Your task to perform on an android device: all mails in gmail Image 0: 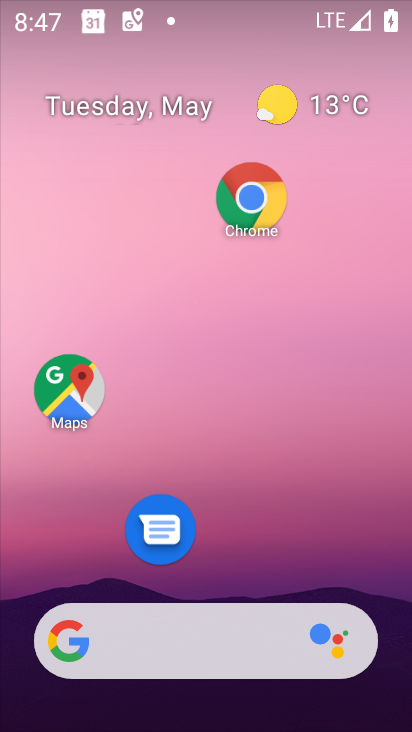
Step 0: drag from (360, 566) to (280, 11)
Your task to perform on an android device: all mails in gmail Image 1: 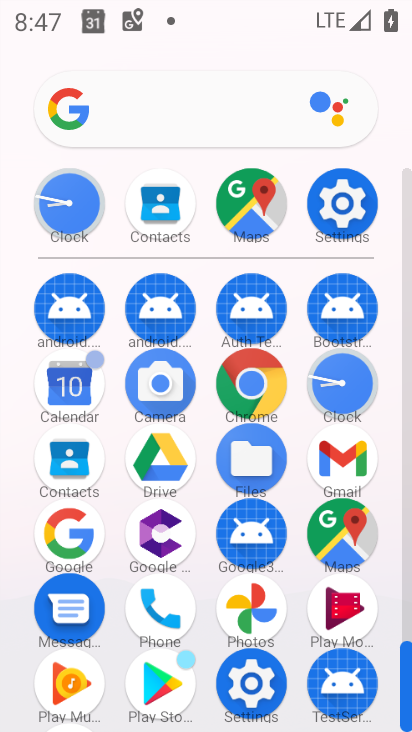
Step 1: click (342, 445)
Your task to perform on an android device: all mails in gmail Image 2: 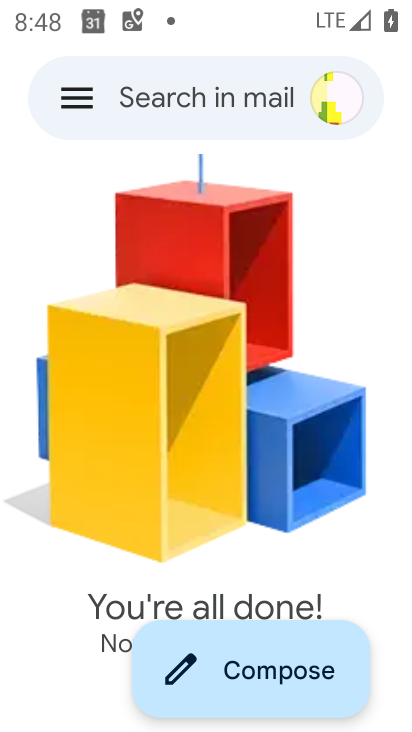
Step 2: click (66, 83)
Your task to perform on an android device: all mails in gmail Image 3: 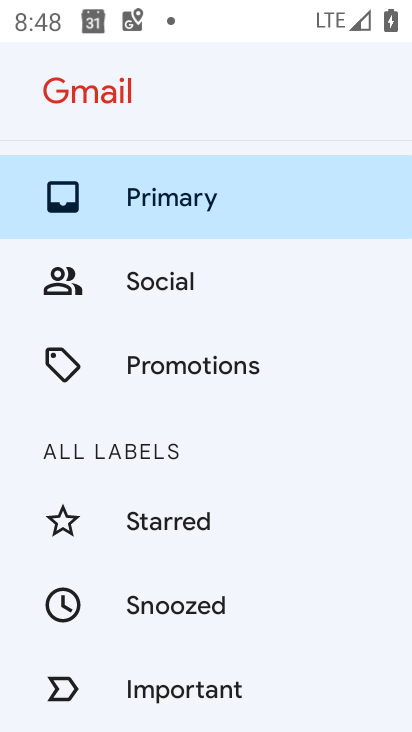
Step 3: drag from (230, 585) to (233, 248)
Your task to perform on an android device: all mails in gmail Image 4: 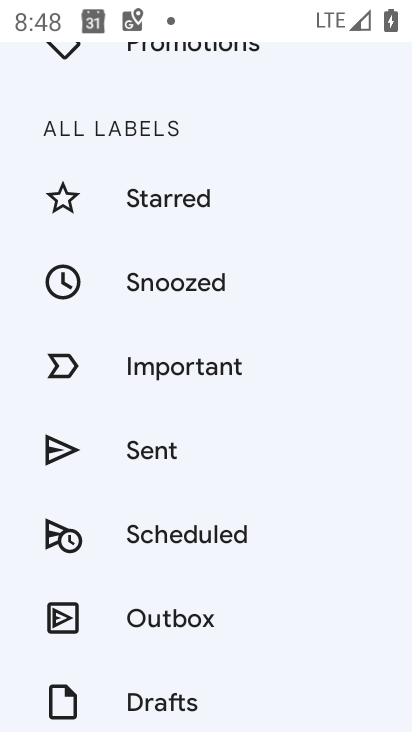
Step 4: drag from (189, 616) to (175, 420)
Your task to perform on an android device: all mails in gmail Image 5: 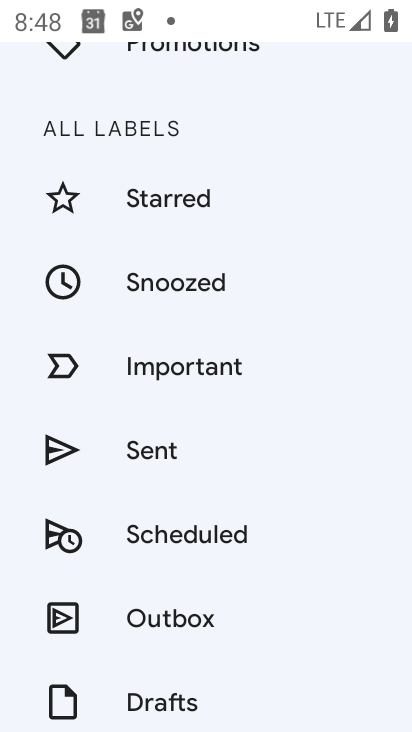
Step 5: drag from (198, 606) to (193, 144)
Your task to perform on an android device: all mails in gmail Image 6: 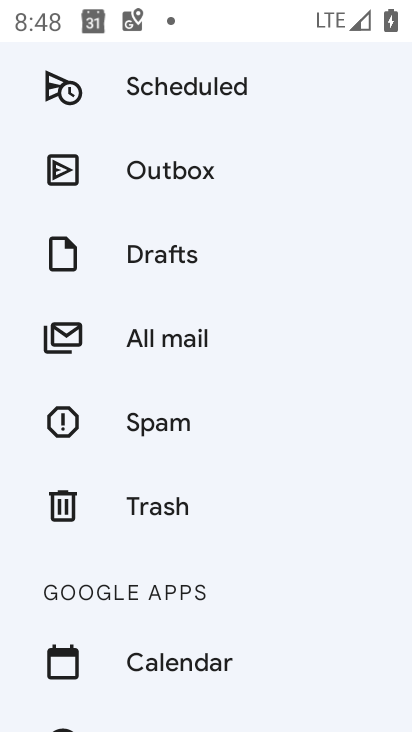
Step 6: drag from (285, 667) to (279, 348)
Your task to perform on an android device: all mails in gmail Image 7: 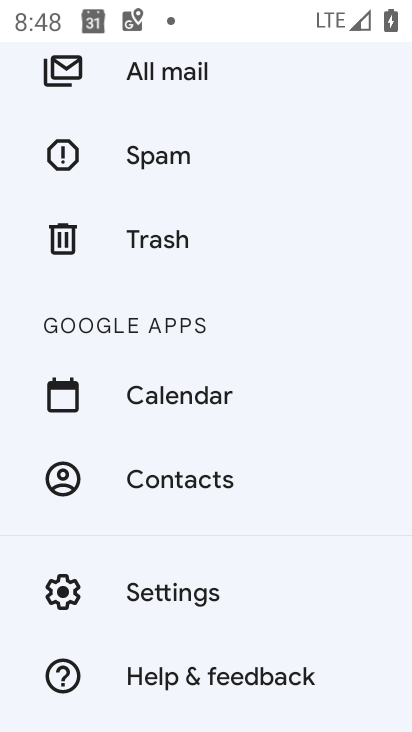
Step 7: click (200, 69)
Your task to perform on an android device: all mails in gmail Image 8: 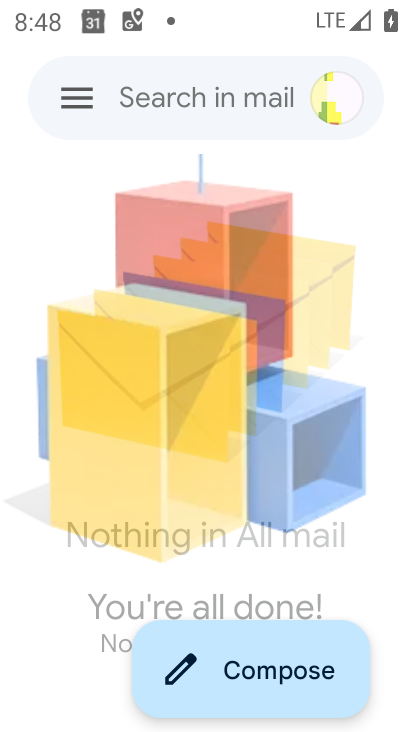
Step 8: task complete